Your task to perform on an android device: turn pop-ups on in chrome Image 0: 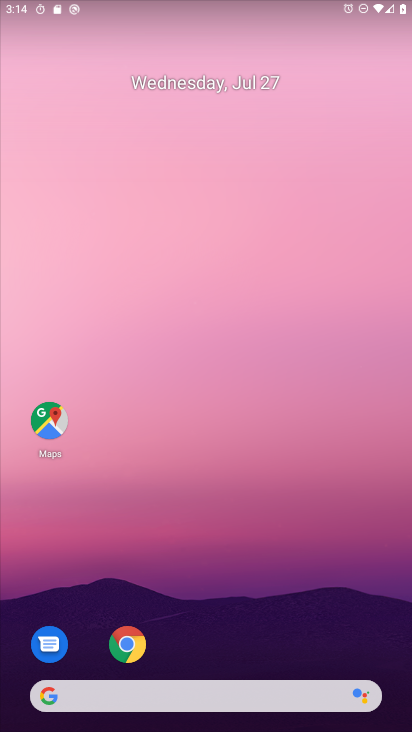
Step 0: drag from (239, 486) to (411, 499)
Your task to perform on an android device: turn pop-ups on in chrome Image 1: 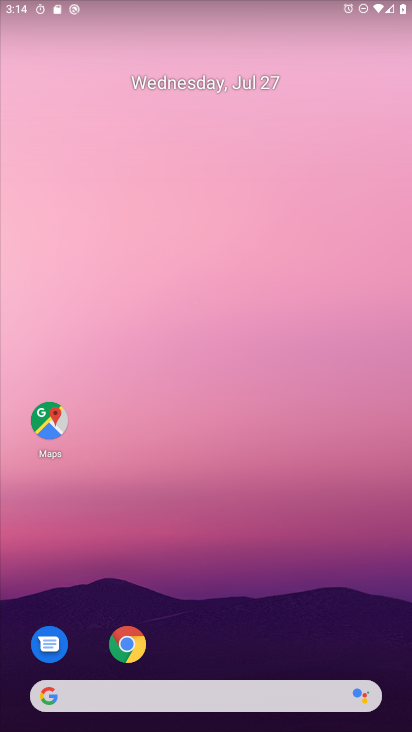
Step 1: drag from (172, 648) to (202, 66)
Your task to perform on an android device: turn pop-ups on in chrome Image 2: 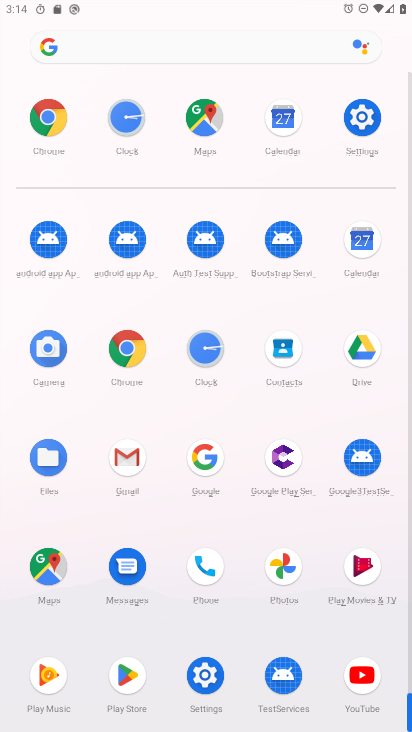
Step 2: drag from (164, 605) to (194, 259)
Your task to perform on an android device: turn pop-ups on in chrome Image 3: 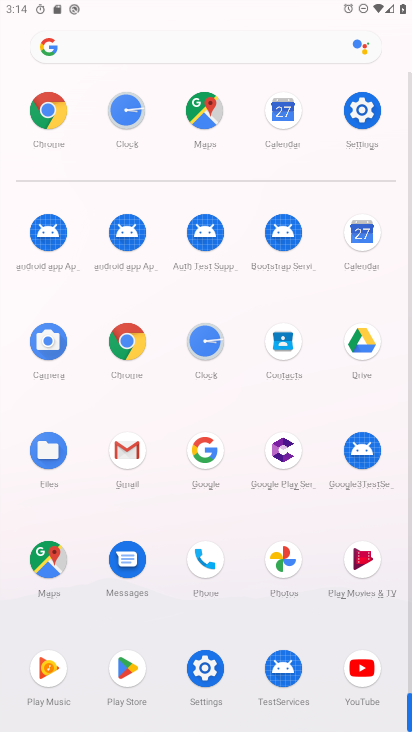
Step 3: click (120, 343)
Your task to perform on an android device: turn pop-ups on in chrome Image 4: 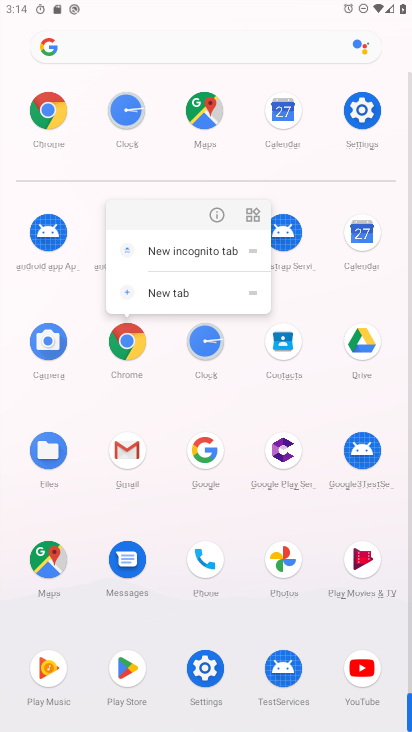
Step 4: click (215, 215)
Your task to perform on an android device: turn pop-ups on in chrome Image 5: 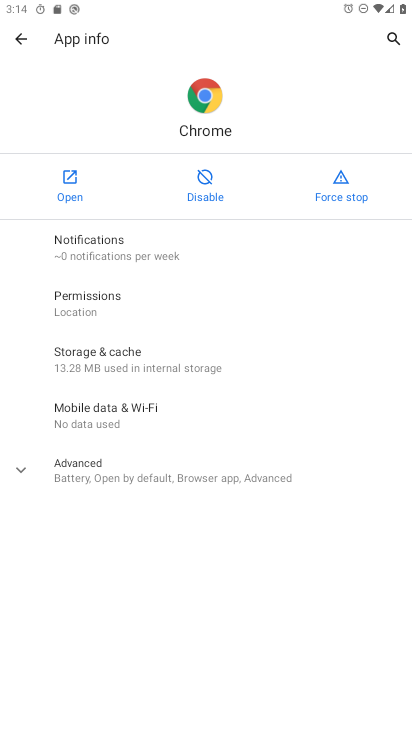
Step 5: click (60, 186)
Your task to perform on an android device: turn pop-ups on in chrome Image 6: 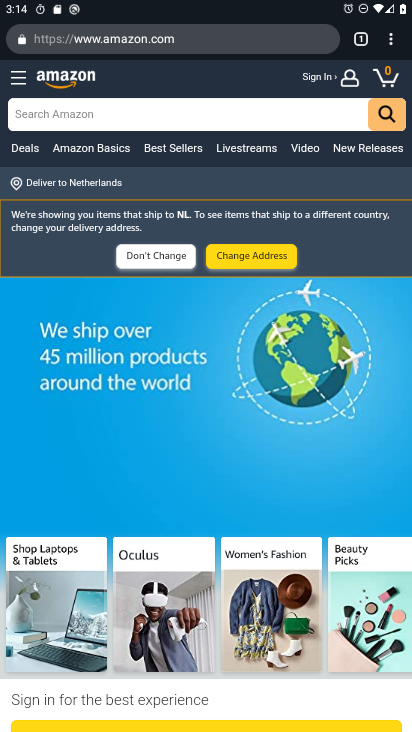
Step 6: drag from (387, 37) to (260, 500)
Your task to perform on an android device: turn pop-ups on in chrome Image 7: 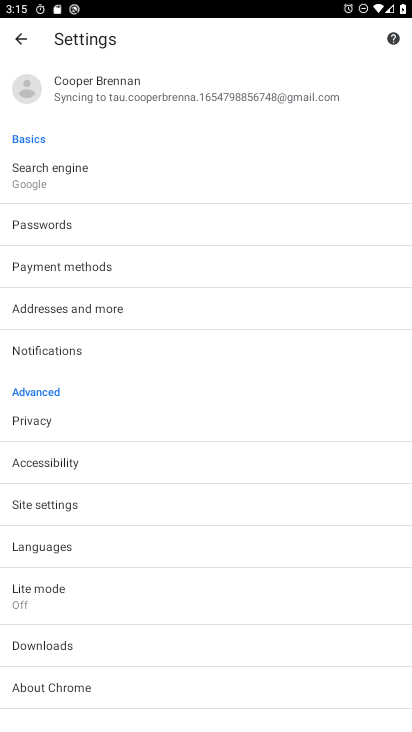
Step 7: drag from (110, 555) to (112, 386)
Your task to perform on an android device: turn pop-ups on in chrome Image 8: 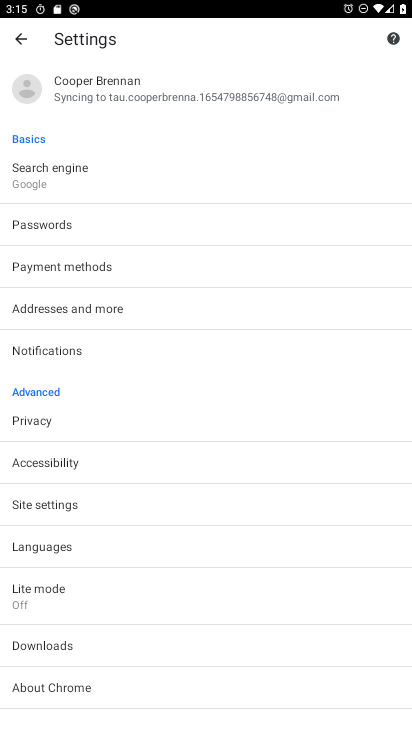
Step 8: drag from (128, 591) to (206, 316)
Your task to perform on an android device: turn pop-ups on in chrome Image 9: 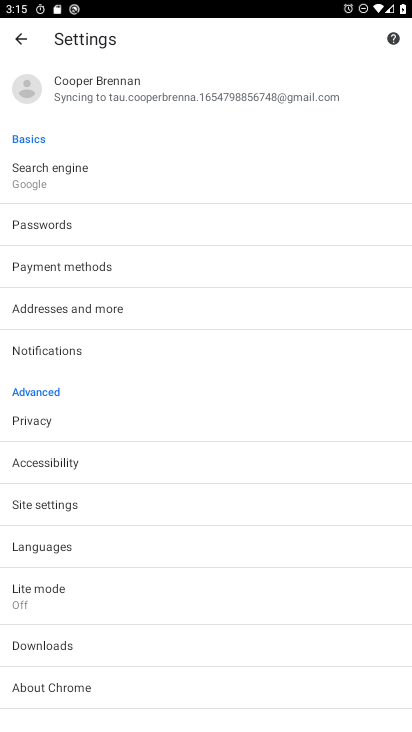
Step 9: click (80, 499)
Your task to perform on an android device: turn pop-ups on in chrome Image 10: 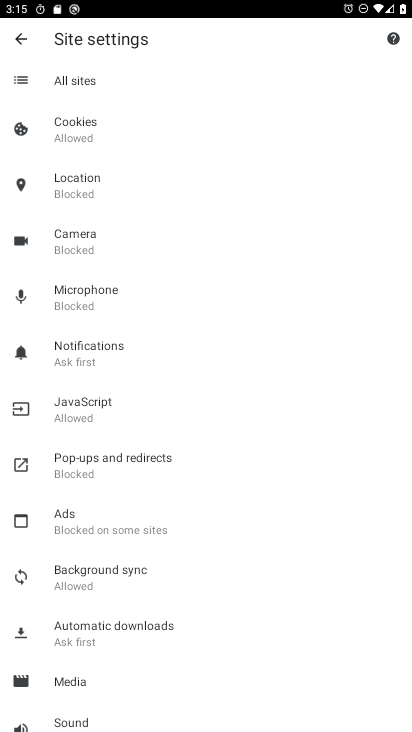
Step 10: drag from (117, 449) to (169, 158)
Your task to perform on an android device: turn pop-ups on in chrome Image 11: 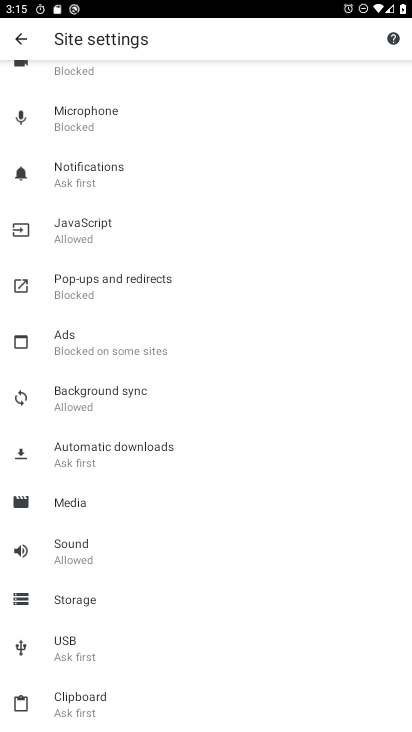
Step 11: click (99, 283)
Your task to perform on an android device: turn pop-ups on in chrome Image 12: 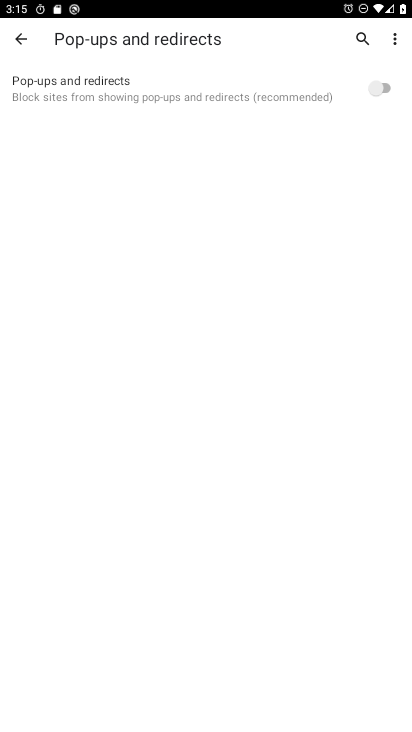
Step 12: drag from (151, 354) to (166, 131)
Your task to perform on an android device: turn pop-ups on in chrome Image 13: 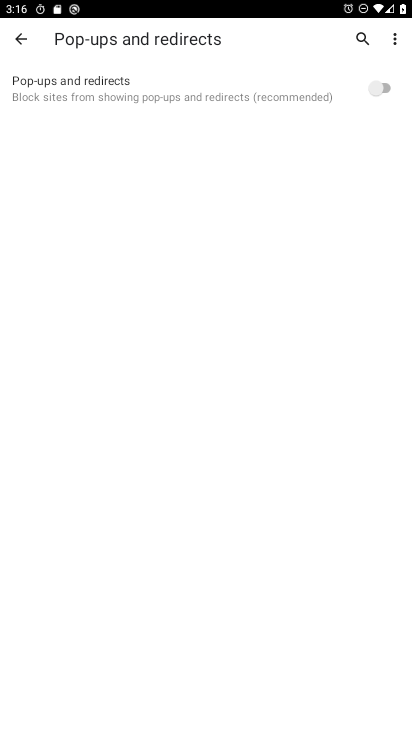
Step 13: click (349, 89)
Your task to perform on an android device: turn pop-ups on in chrome Image 14: 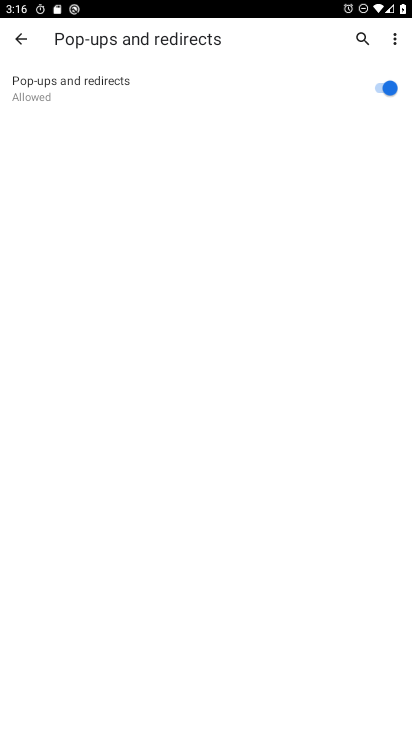
Step 14: task complete